Your task to perform on an android device: turn on translation in the chrome app Image 0: 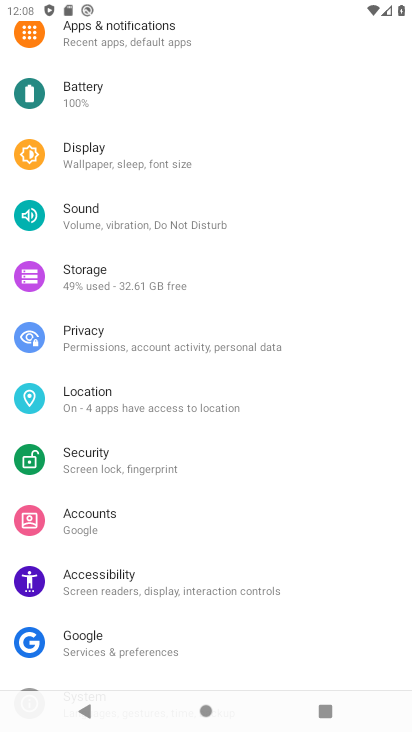
Step 0: press home button
Your task to perform on an android device: turn on translation in the chrome app Image 1: 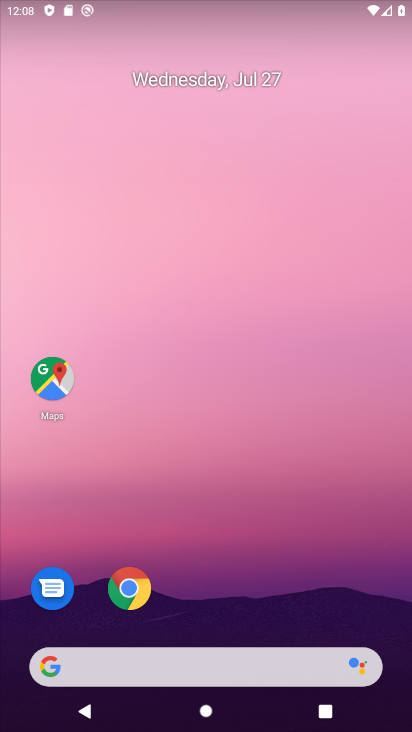
Step 1: click (128, 600)
Your task to perform on an android device: turn on translation in the chrome app Image 2: 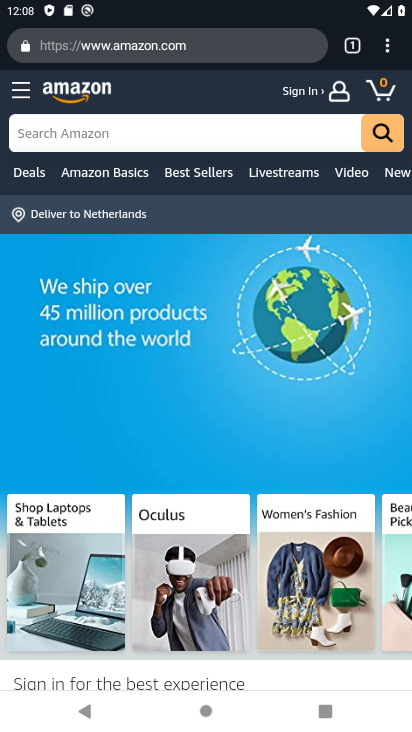
Step 2: click (392, 50)
Your task to perform on an android device: turn on translation in the chrome app Image 3: 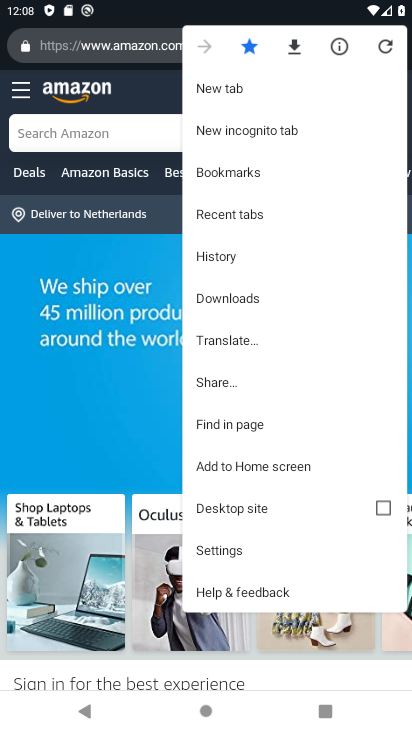
Step 3: click (239, 551)
Your task to perform on an android device: turn on translation in the chrome app Image 4: 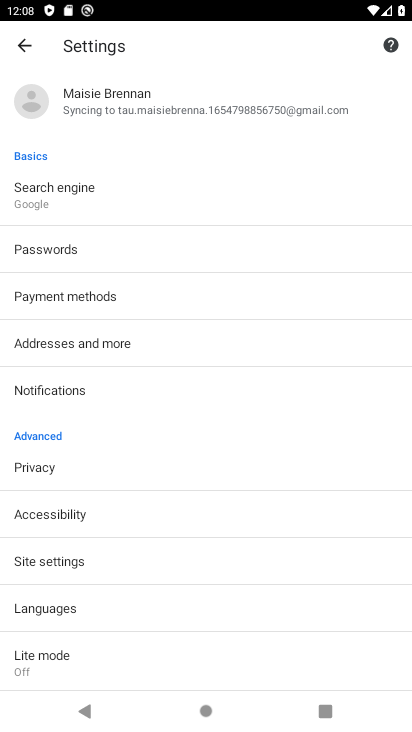
Step 4: click (30, 609)
Your task to perform on an android device: turn on translation in the chrome app Image 5: 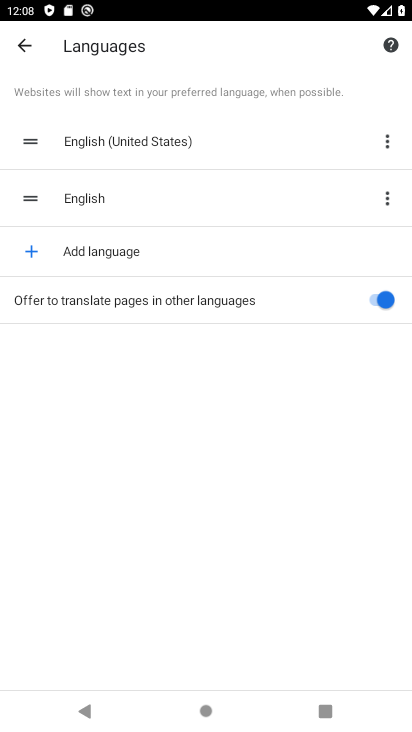
Step 5: task complete